Your task to perform on an android device: Open battery settings Image 0: 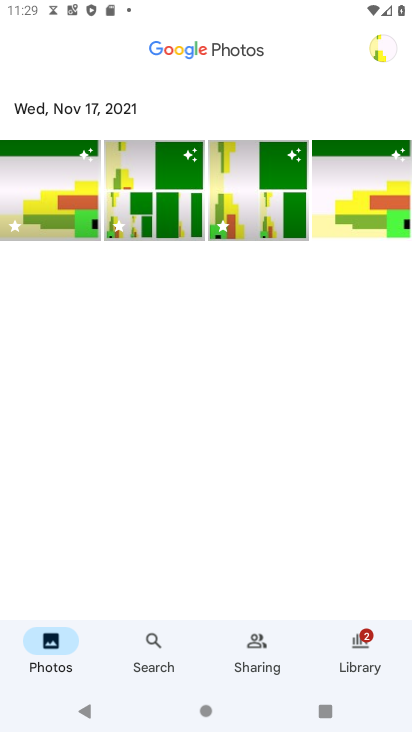
Step 0: press back button
Your task to perform on an android device: Open battery settings Image 1: 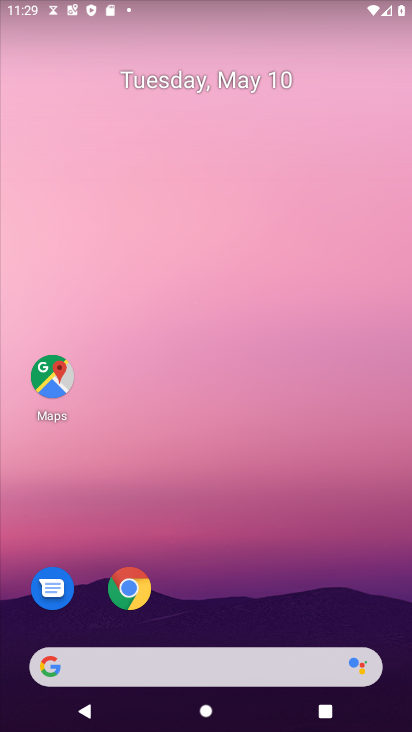
Step 1: drag from (303, 590) to (70, 126)
Your task to perform on an android device: Open battery settings Image 2: 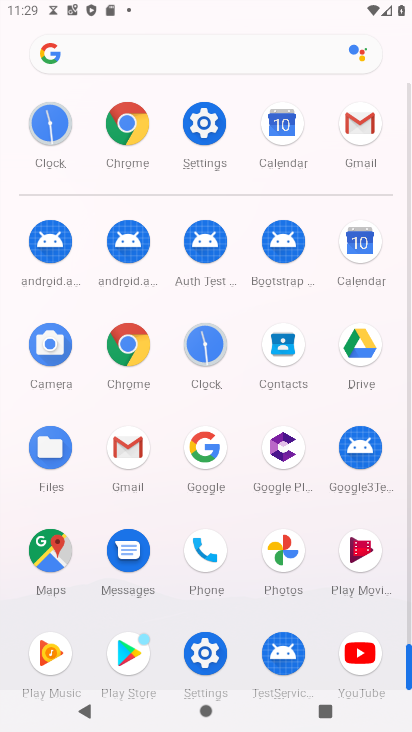
Step 2: click (194, 120)
Your task to perform on an android device: Open battery settings Image 3: 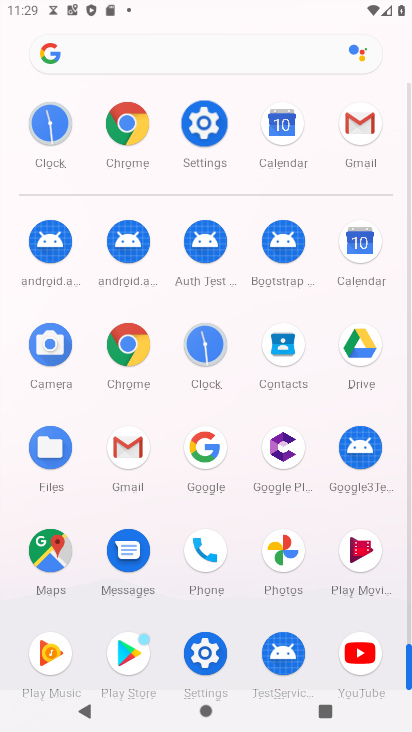
Step 3: click (195, 121)
Your task to perform on an android device: Open battery settings Image 4: 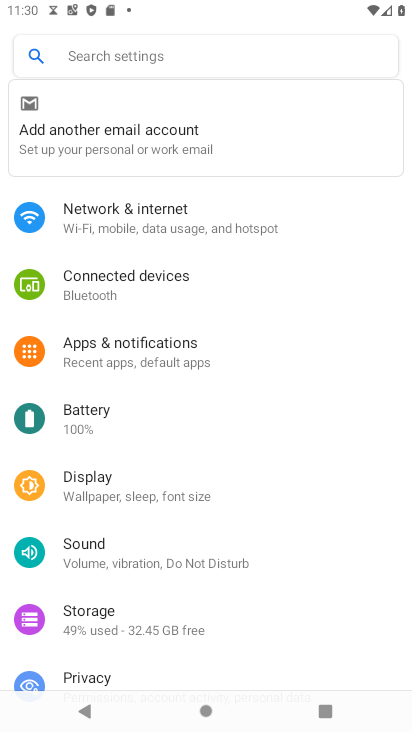
Step 4: click (73, 418)
Your task to perform on an android device: Open battery settings Image 5: 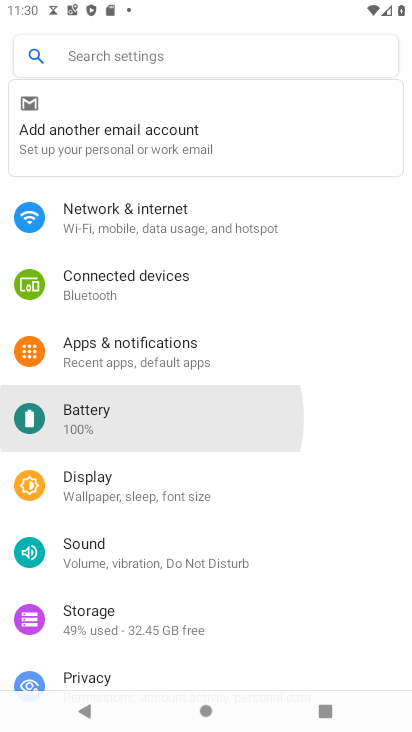
Step 5: click (73, 418)
Your task to perform on an android device: Open battery settings Image 6: 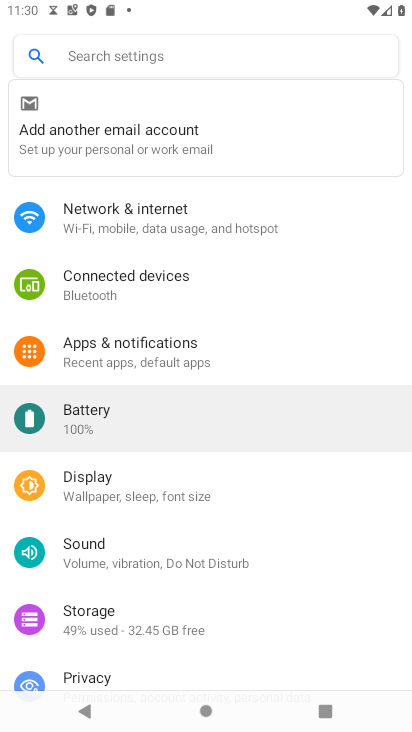
Step 6: click (73, 418)
Your task to perform on an android device: Open battery settings Image 7: 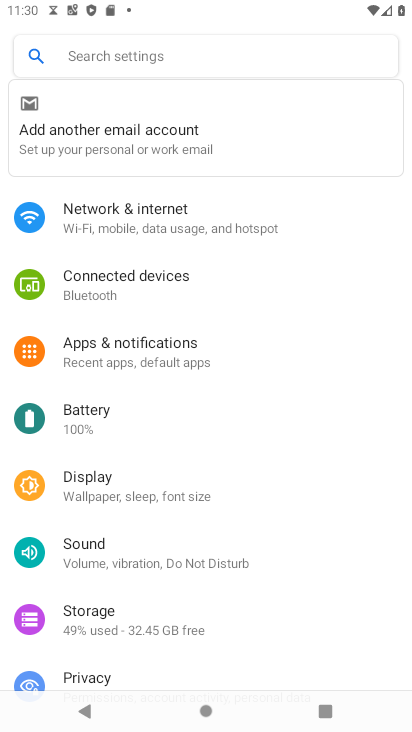
Step 7: click (73, 418)
Your task to perform on an android device: Open battery settings Image 8: 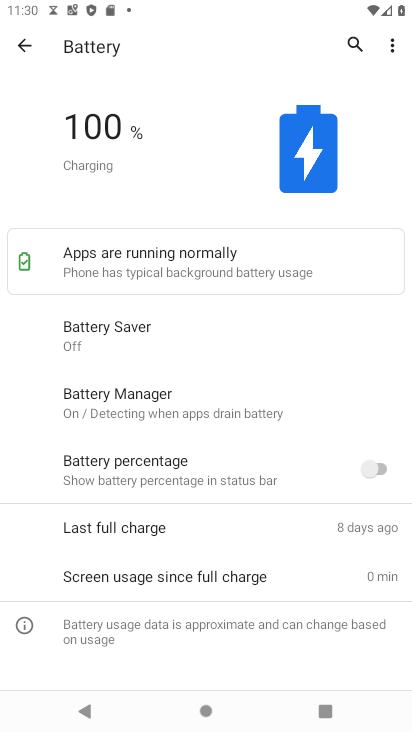
Step 8: task complete